Your task to perform on an android device: Clear the shopping cart on ebay.com. Image 0: 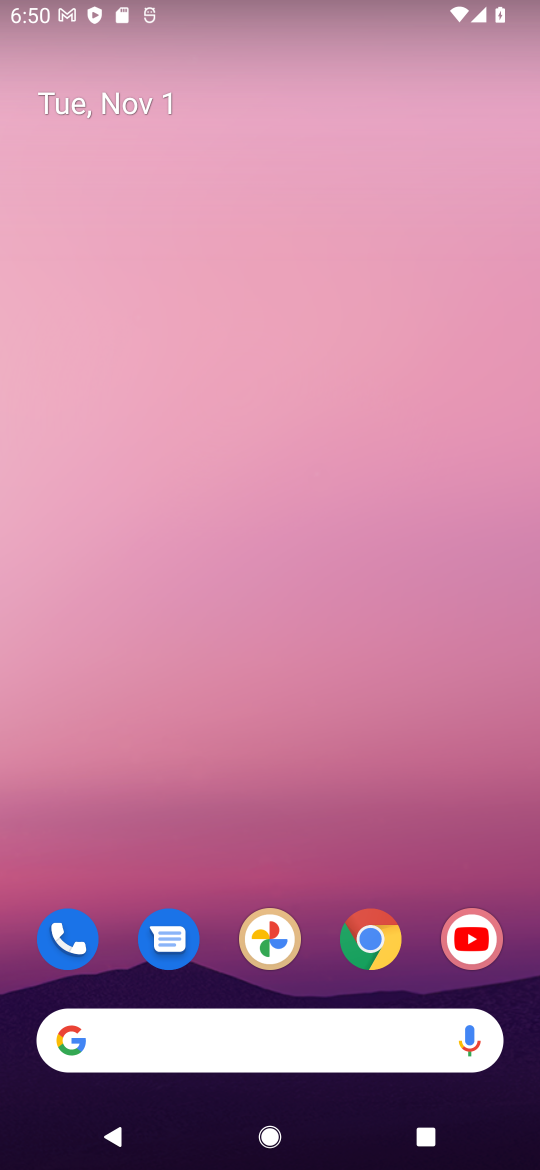
Step 0: drag from (230, 994) to (245, 263)
Your task to perform on an android device: Clear the shopping cart on ebay.com. Image 1: 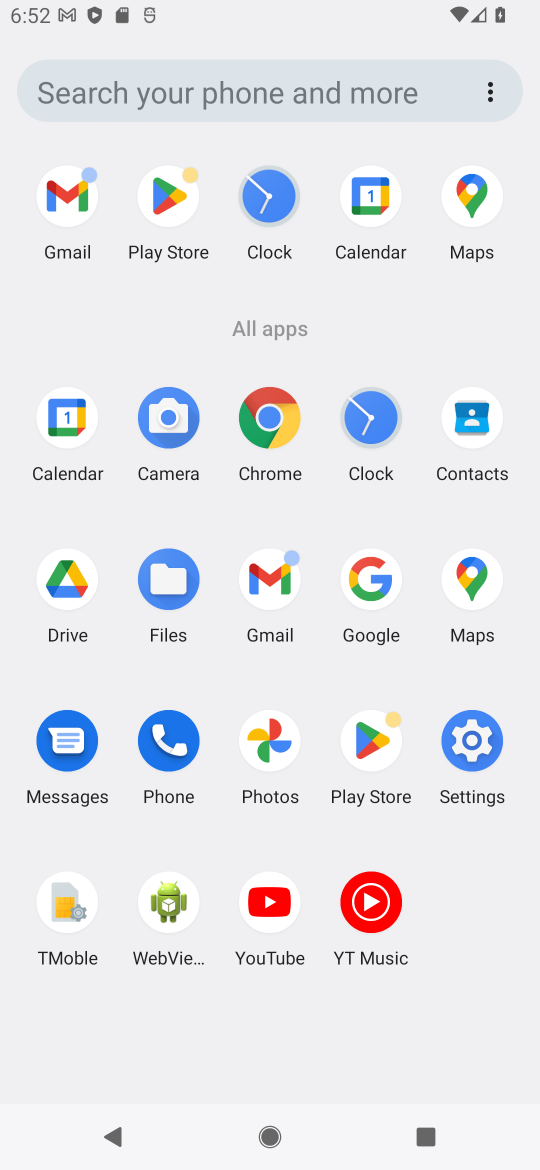
Step 1: click (275, 432)
Your task to perform on an android device: Clear the shopping cart on ebay.com. Image 2: 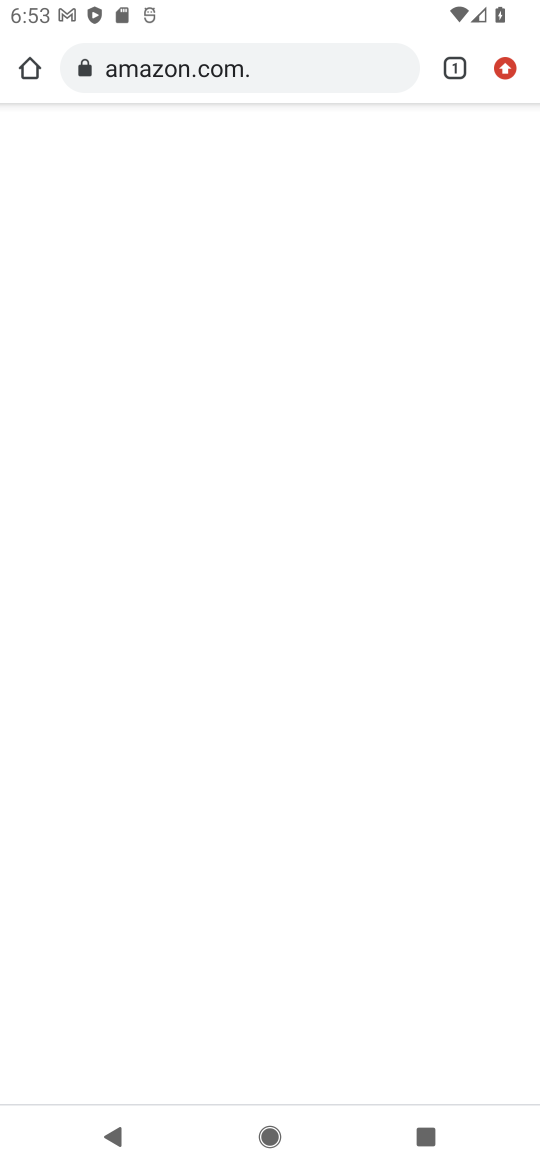
Step 2: click (260, 88)
Your task to perform on an android device: Clear the shopping cart on ebay.com. Image 3: 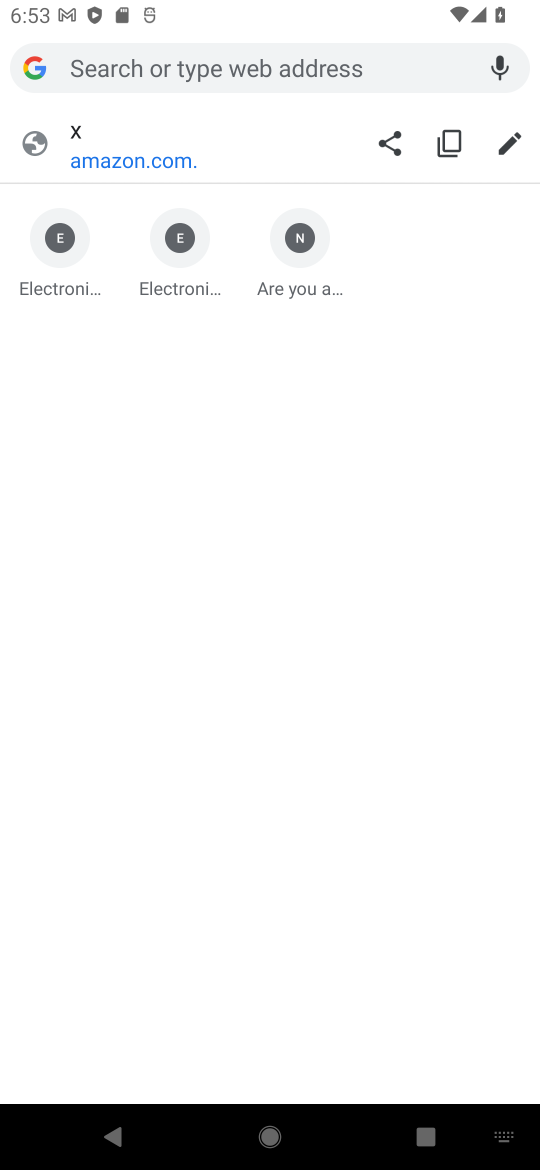
Step 3: type "ebay.com."
Your task to perform on an android device: Clear the shopping cart on ebay.com. Image 4: 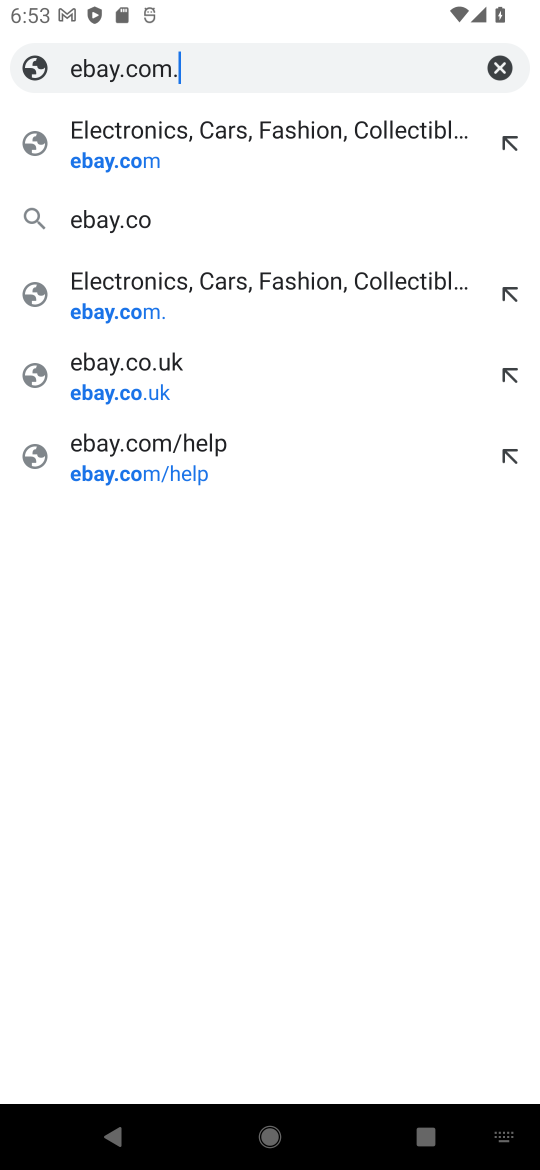
Step 4: press enter
Your task to perform on an android device: Clear the shopping cart on ebay.com. Image 5: 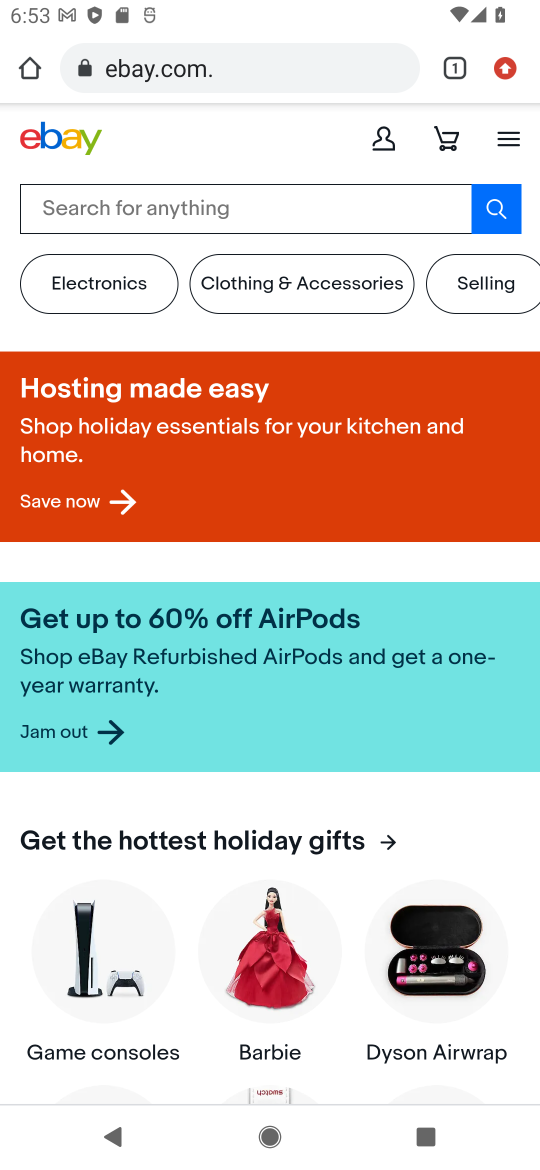
Step 5: click (438, 131)
Your task to perform on an android device: Clear the shopping cart on ebay.com. Image 6: 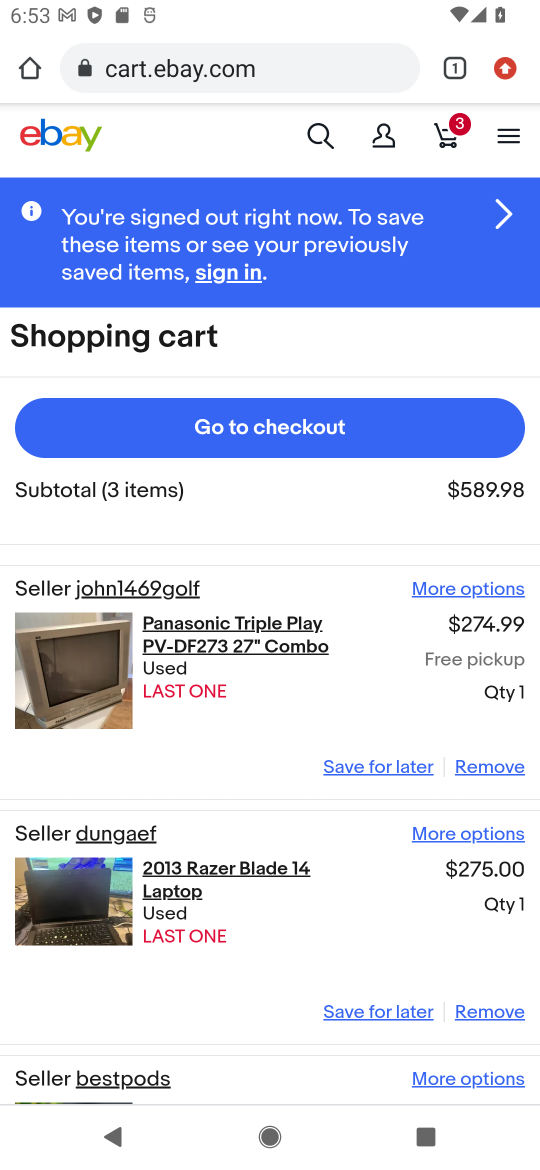
Step 6: click (496, 775)
Your task to perform on an android device: Clear the shopping cart on ebay.com. Image 7: 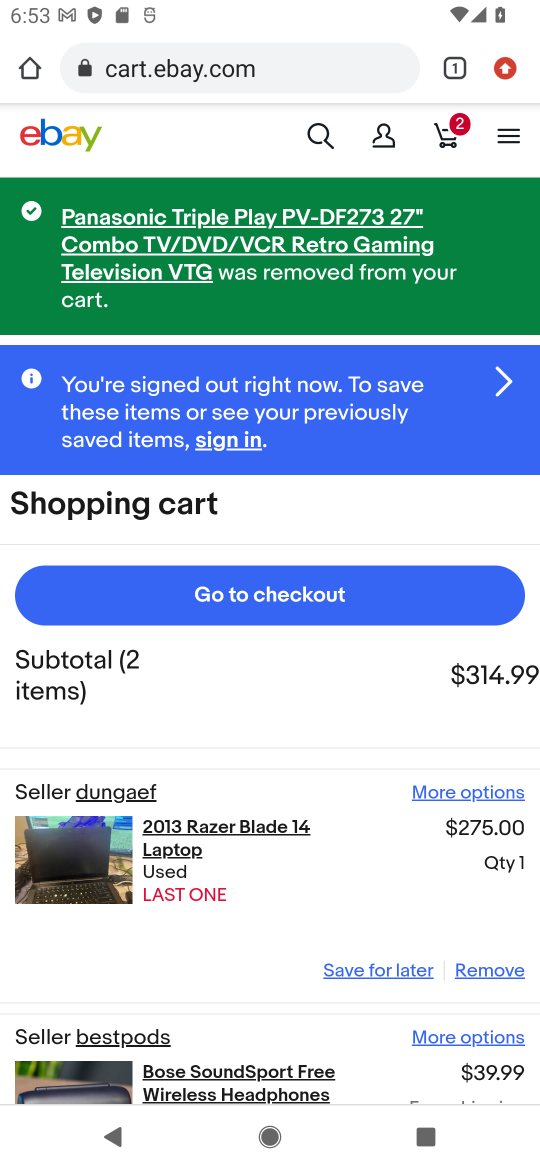
Step 7: drag from (318, 1000) to (327, 521)
Your task to perform on an android device: Clear the shopping cart on ebay.com. Image 8: 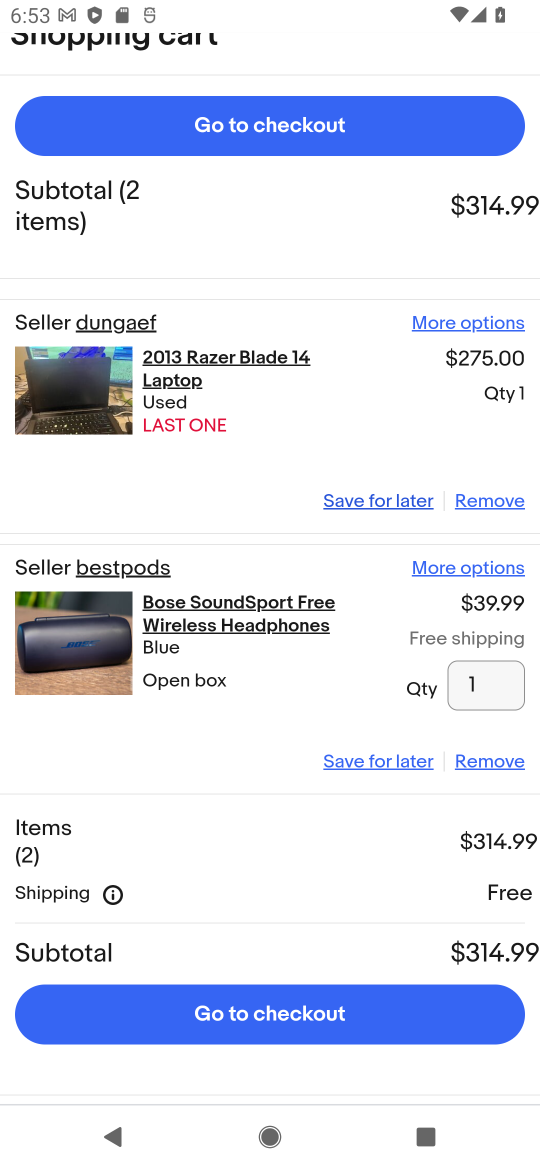
Step 8: click (478, 498)
Your task to perform on an android device: Clear the shopping cart on ebay.com. Image 9: 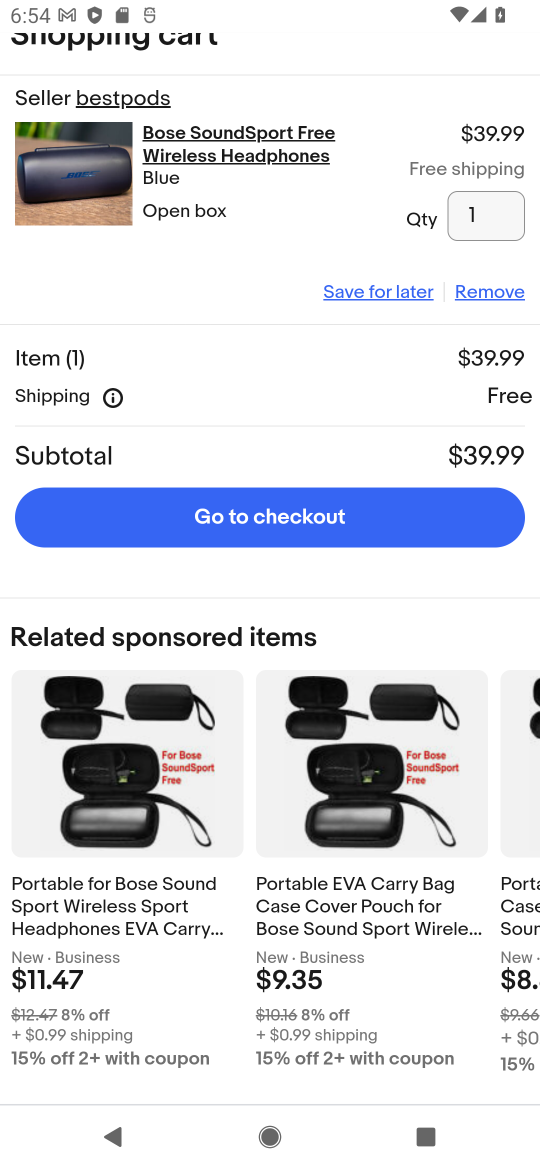
Step 9: click (489, 293)
Your task to perform on an android device: Clear the shopping cart on ebay.com. Image 10: 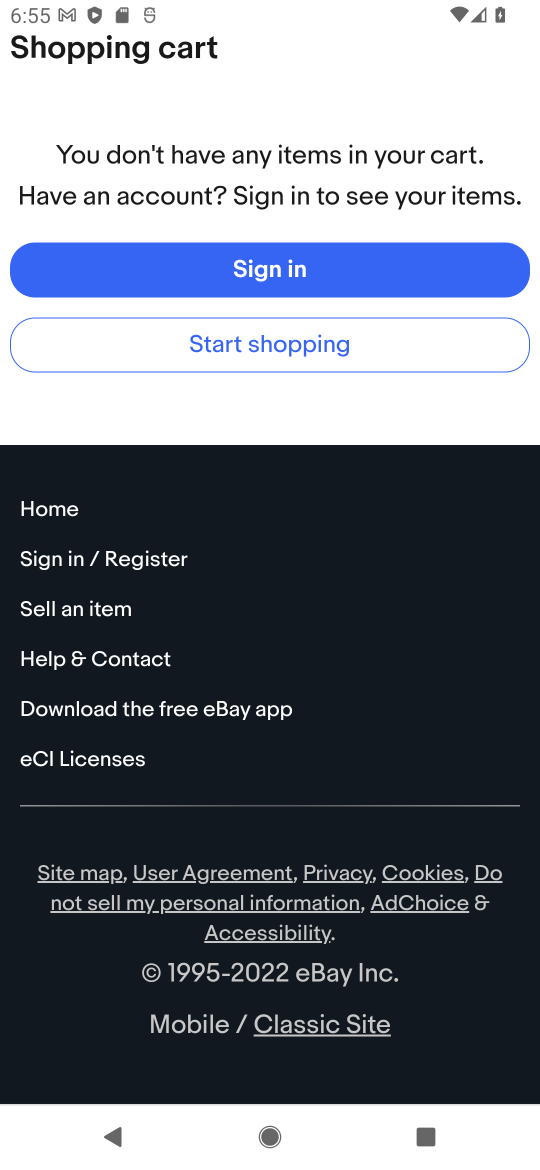
Step 10: task complete